Your task to perform on an android device: check storage Image 0: 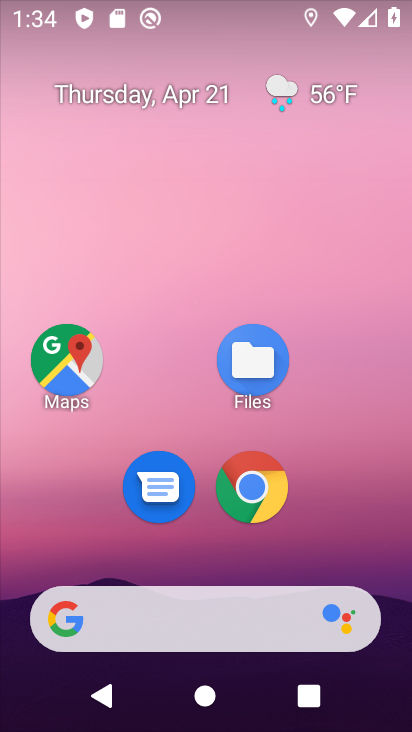
Step 0: drag from (366, 510) to (358, 201)
Your task to perform on an android device: check storage Image 1: 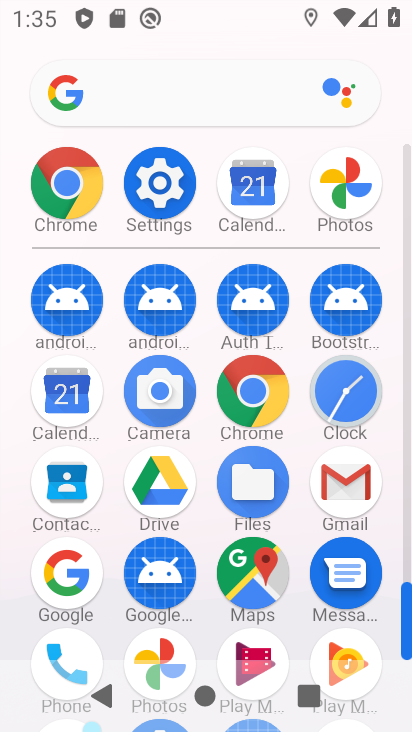
Step 1: click (188, 204)
Your task to perform on an android device: check storage Image 2: 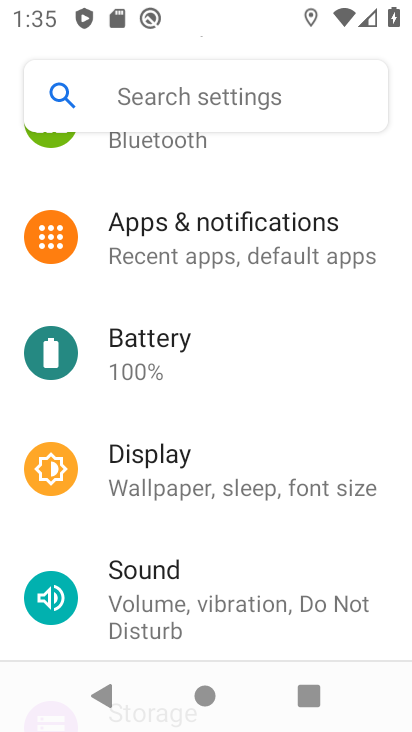
Step 2: drag from (285, 556) to (299, 320)
Your task to perform on an android device: check storage Image 3: 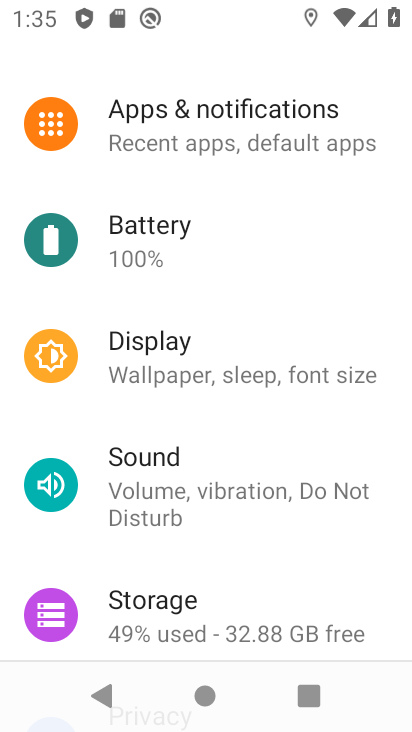
Step 3: click (179, 622)
Your task to perform on an android device: check storage Image 4: 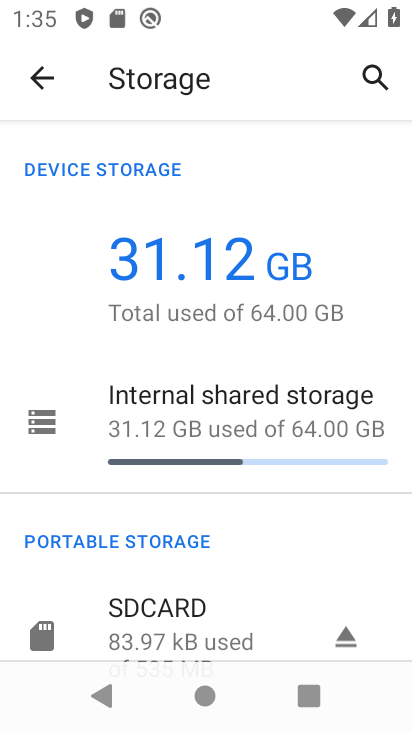
Step 4: click (27, 413)
Your task to perform on an android device: check storage Image 5: 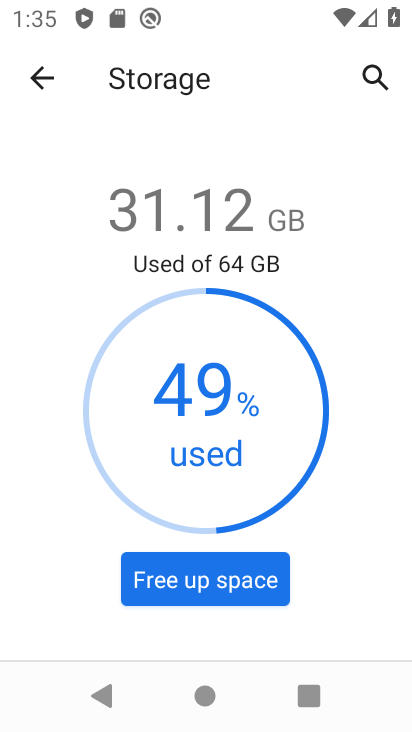
Step 5: task complete